Your task to perform on an android device: delete location history Image 0: 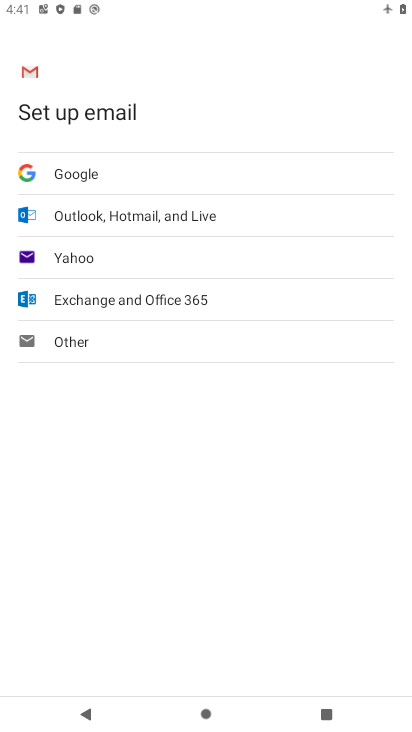
Step 0: press home button
Your task to perform on an android device: delete location history Image 1: 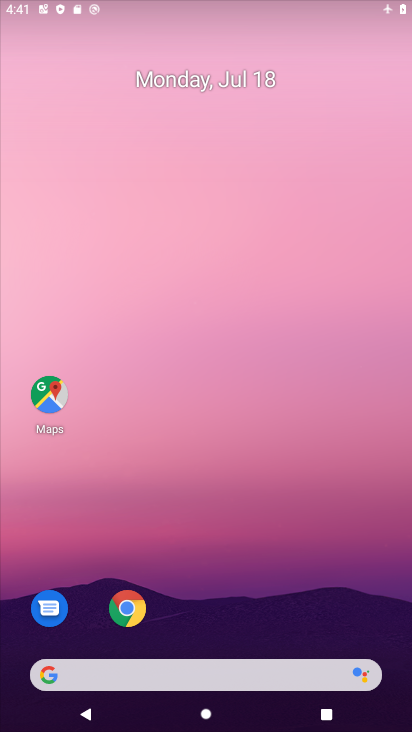
Step 1: drag from (346, 597) to (182, 66)
Your task to perform on an android device: delete location history Image 2: 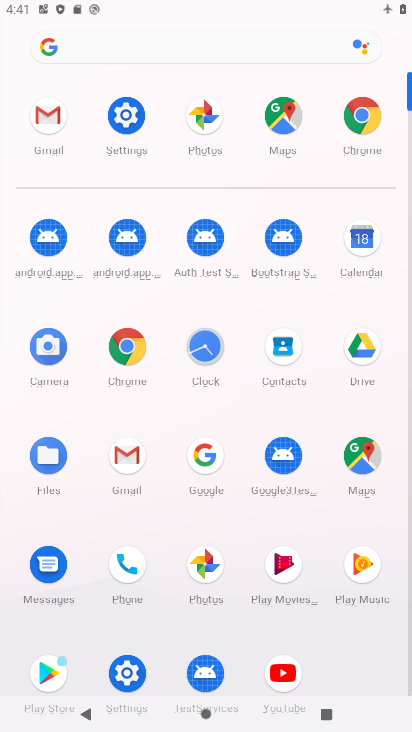
Step 2: click (124, 113)
Your task to perform on an android device: delete location history Image 3: 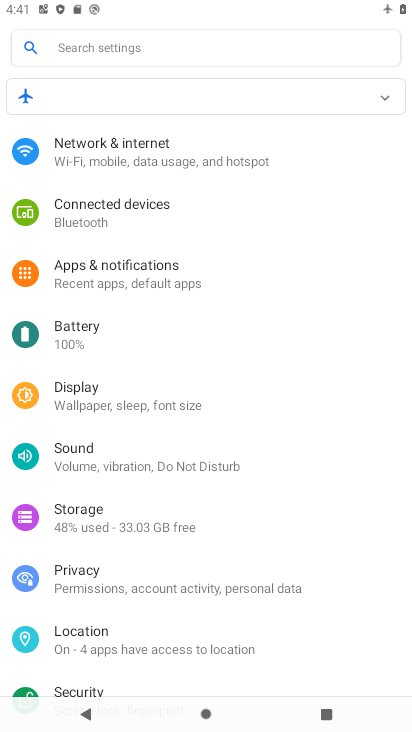
Step 3: press home button
Your task to perform on an android device: delete location history Image 4: 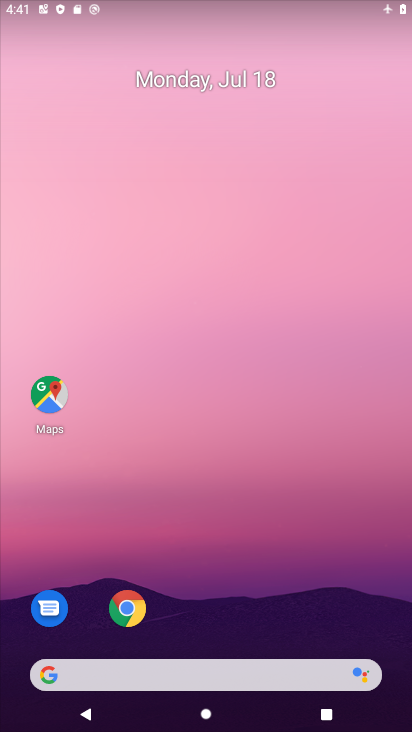
Step 4: drag from (242, 451) to (192, 6)
Your task to perform on an android device: delete location history Image 5: 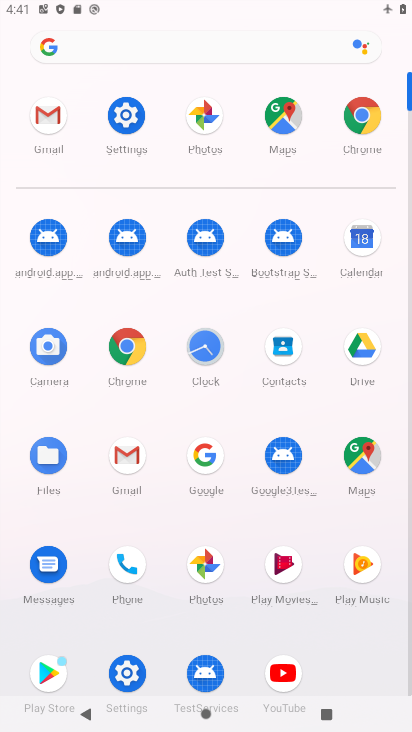
Step 5: click (291, 117)
Your task to perform on an android device: delete location history Image 6: 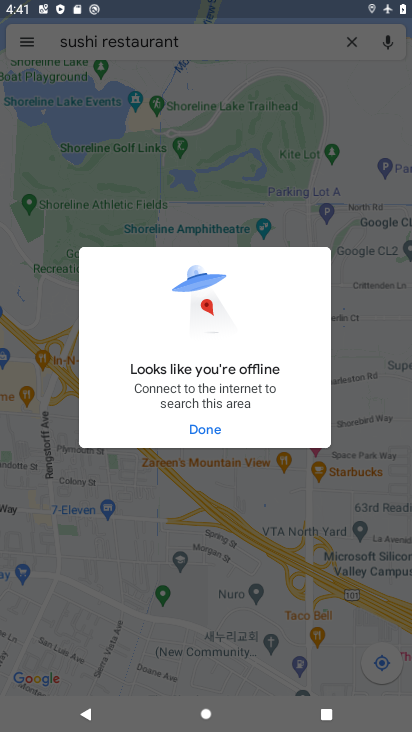
Step 6: click (200, 424)
Your task to perform on an android device: delete location history Image 7: 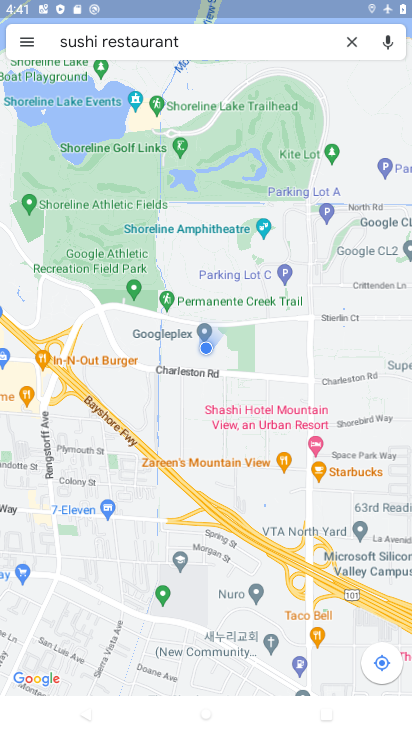
Step 7: click (21, 40)
Your task to perform on an android device: delete location history Image 8: 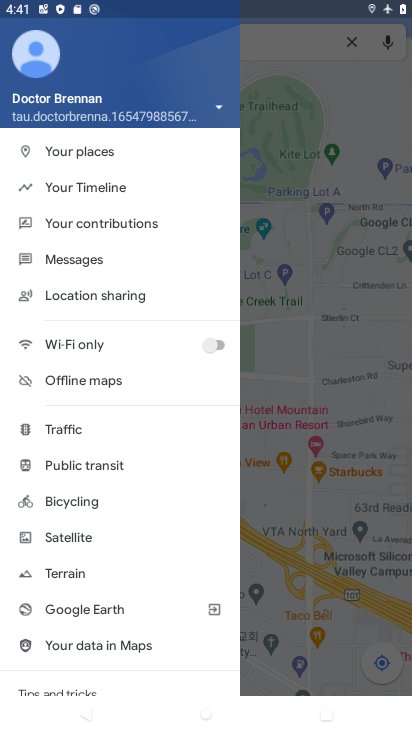
Step 8: drag from (94, 621) to (92, 203)
Your task to perform on an android device: delete location history Image 9: 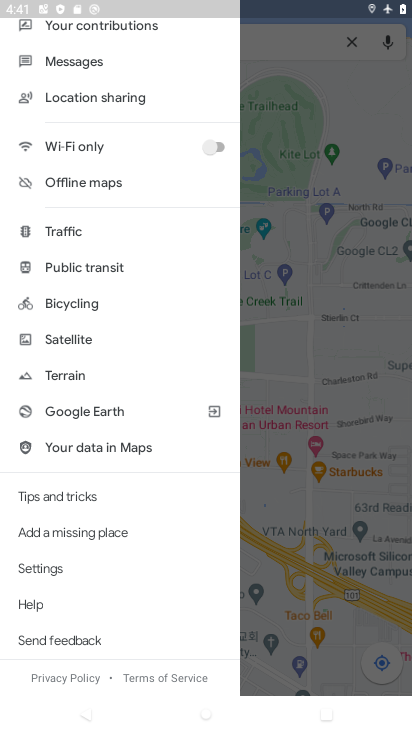
Step 9: click (46, 561)
Your task to perform on an android device: delete location history Image 10: 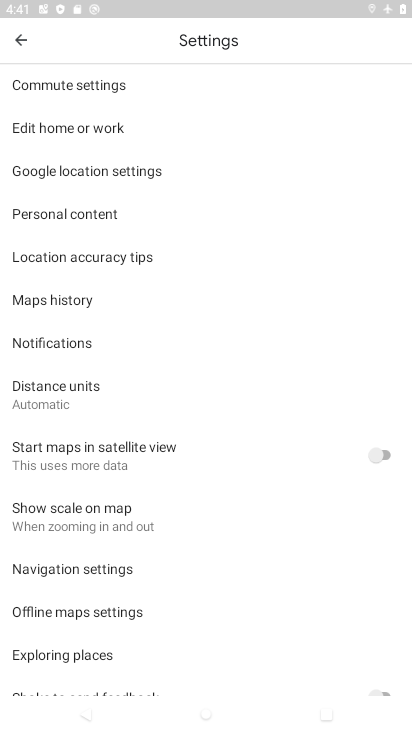
Step 10: click (77, 305)
Your task to perform on an android device: delete location history Image 11: 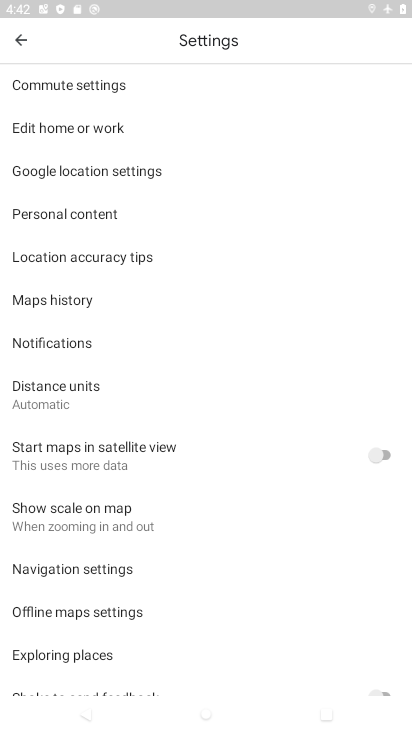
Step 11: task complete